Your task to perform on an android device: See recent photos Image 0: 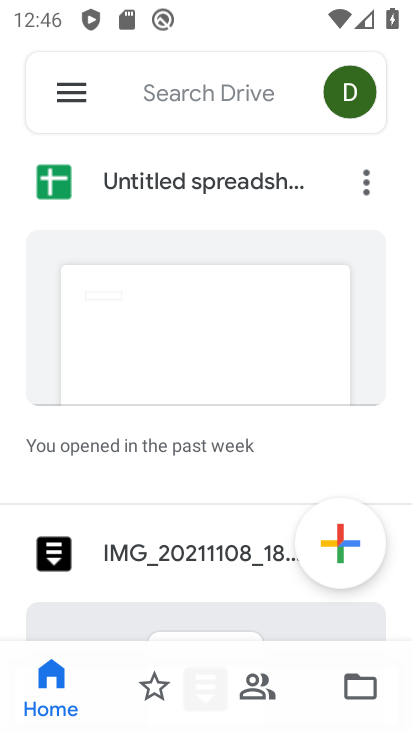
Step 0: press home button
Your task to perform on an android device: See recent photos Image 1: 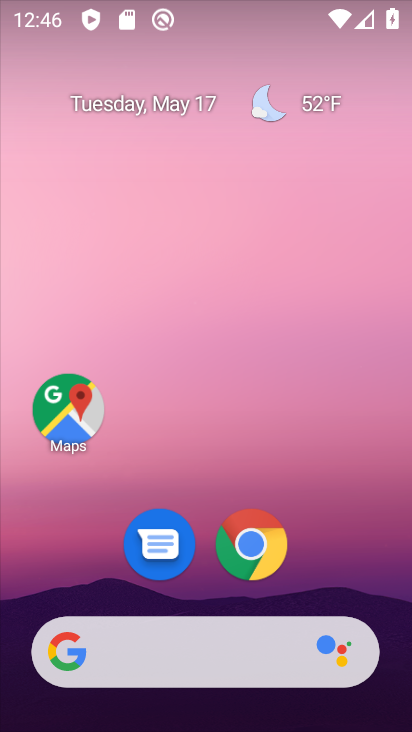
Step 1: drag from (371, 561) to (375, 93)
Your task to perform on an android device: See recent photos Image 2: 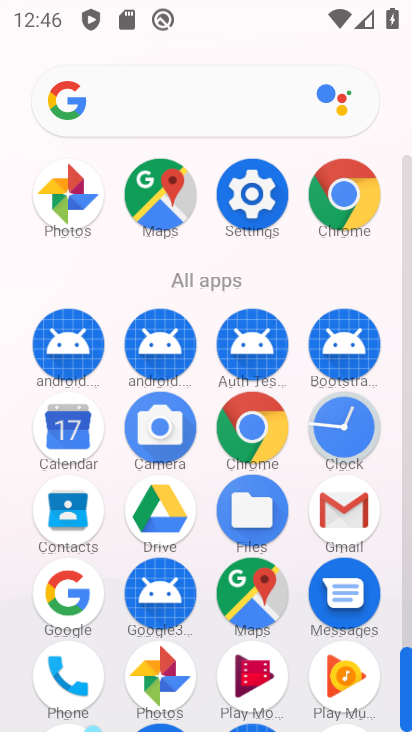
Step 2: click (159, 670)
Your task to perform on an android device: See recent photos Image 3: 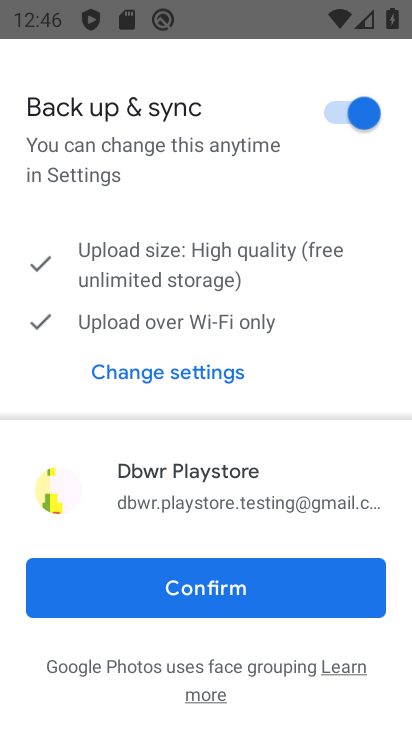
Step 3: click (227, 588)
Your task to perform on an android device: See recent photos Image 4: 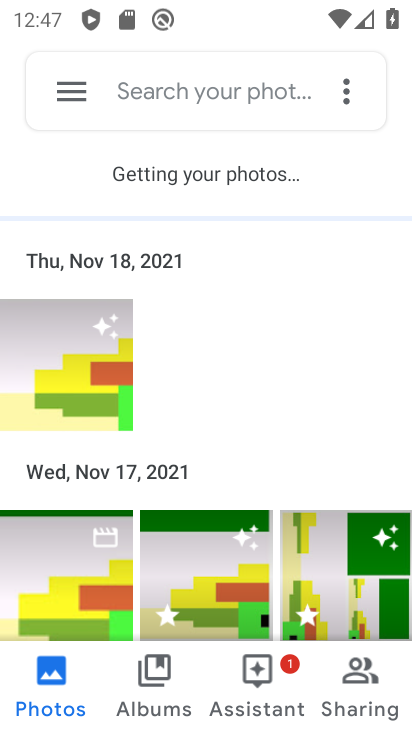
Step 4: task complete